Your task to perform on an android device: What does the iPhone 8 look like? Image 0: 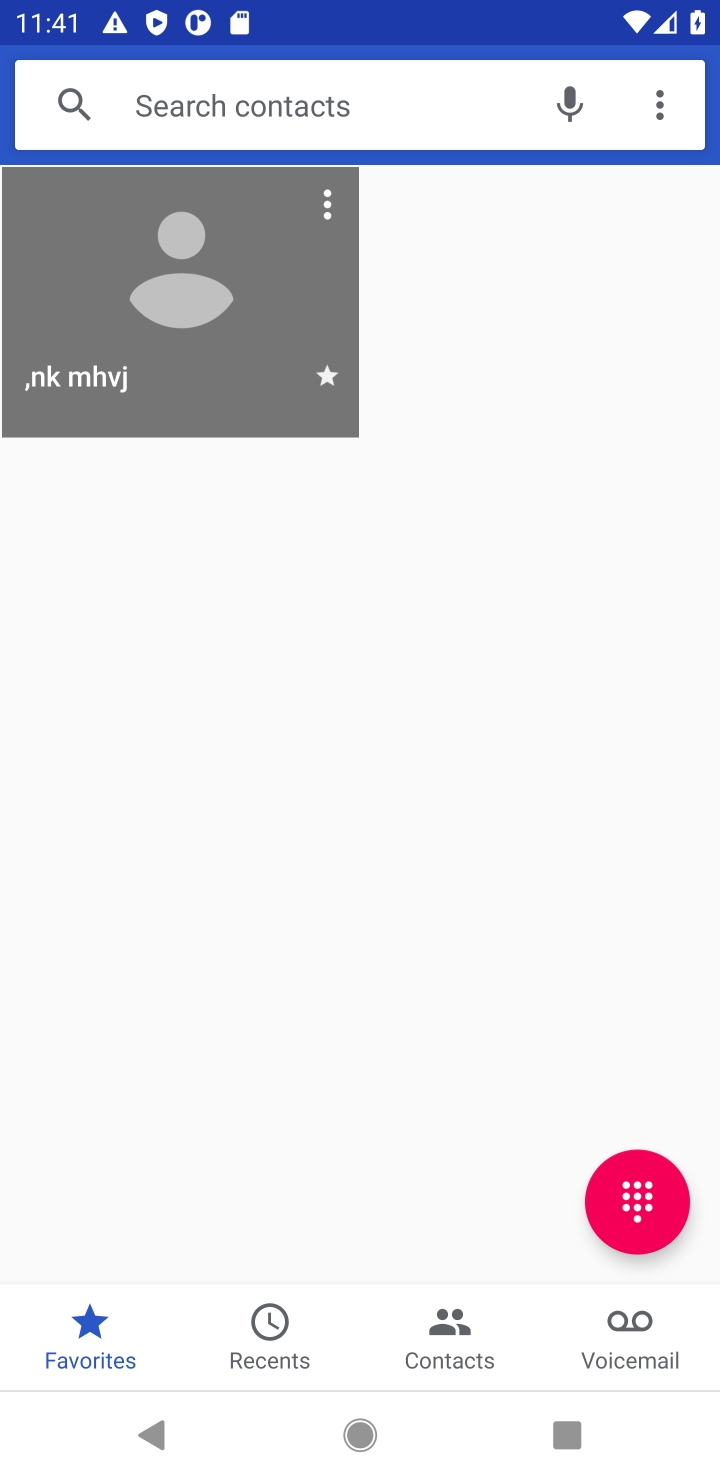
Step 0: press home button
Your task to perform on an android device: What does the iPhone 8 look like? Image 1: 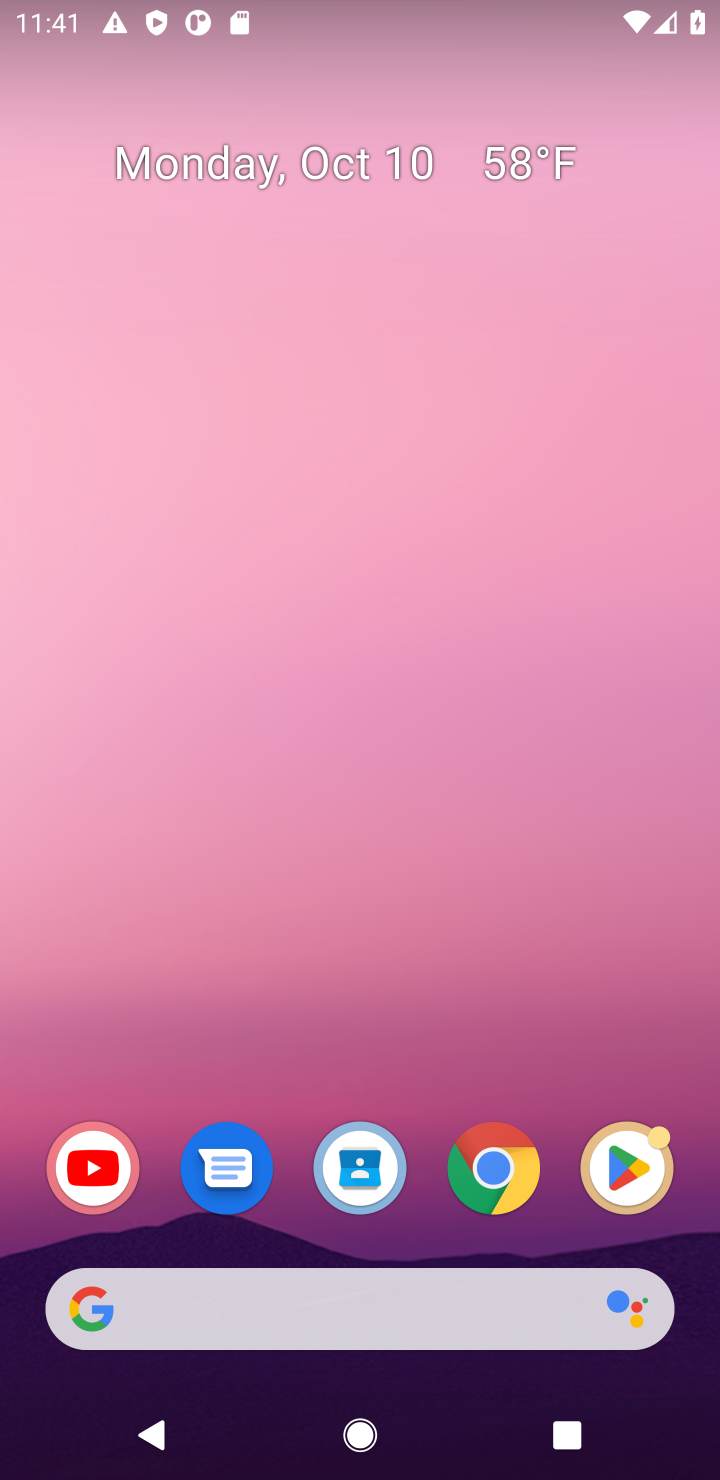
Step 1: click (348, 1291)
Your task to perform on an android device: What does the iPhone 8 look like? Image 2: 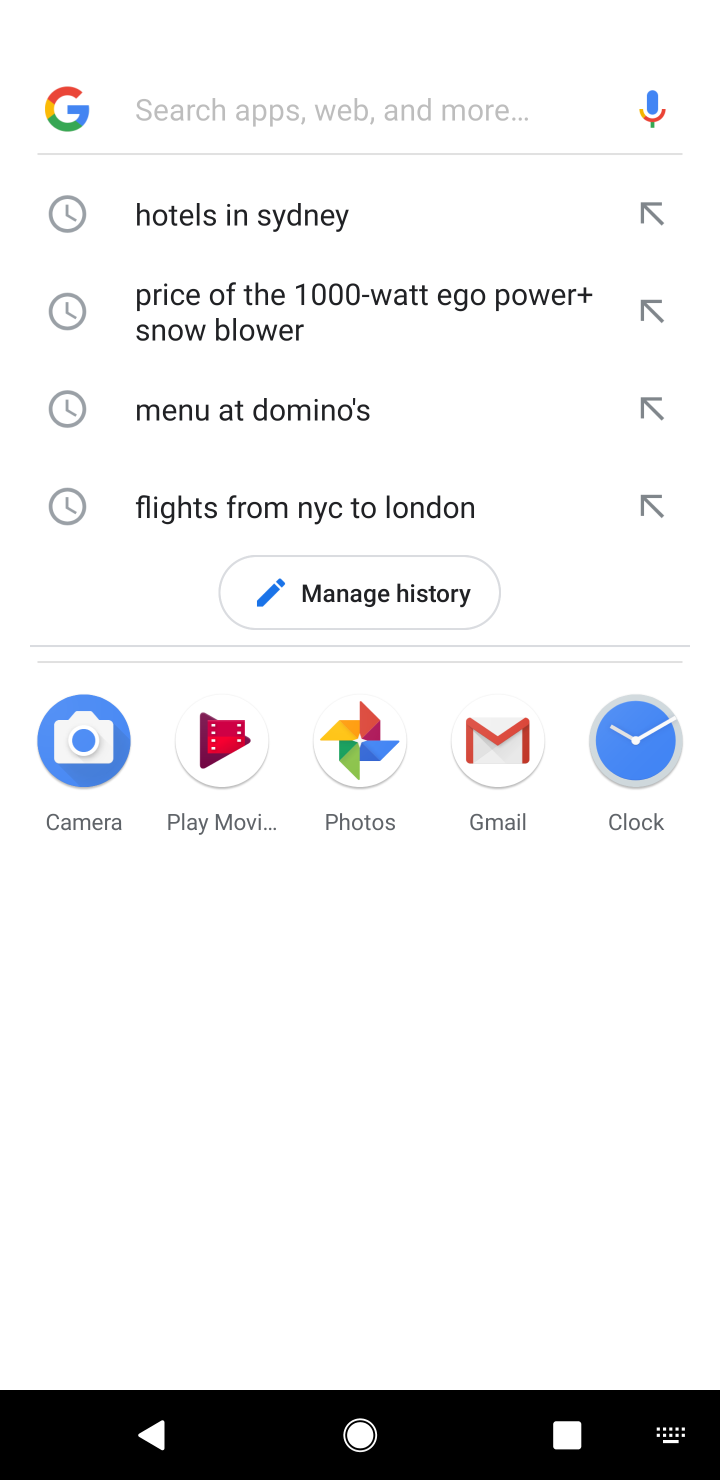
Step 2: type "iPhone 8 look like"
Your task to perform on an android device: What does the iPhone 8 look like? Image 3: 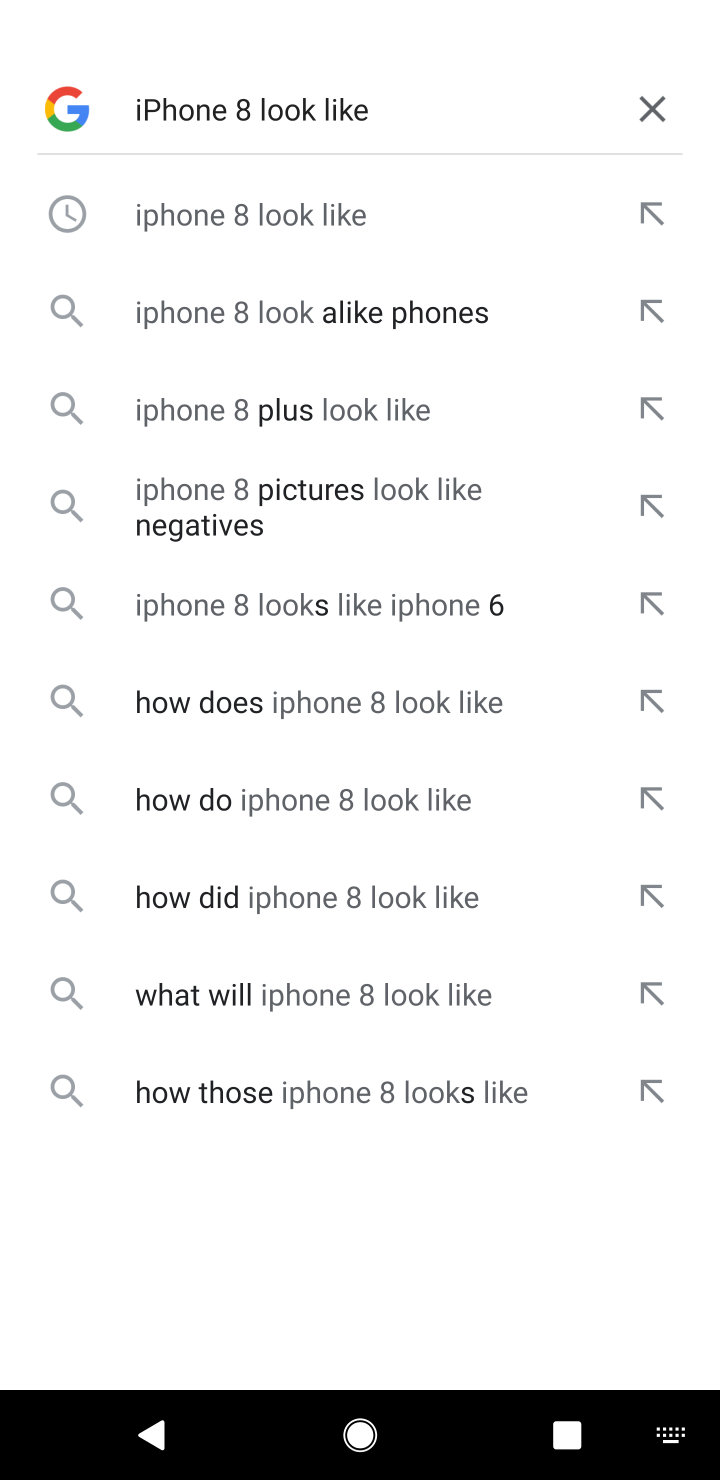
Step 3: type ""
Your task to perform on an android device: What does the iPhone 8 look like? Image 4: 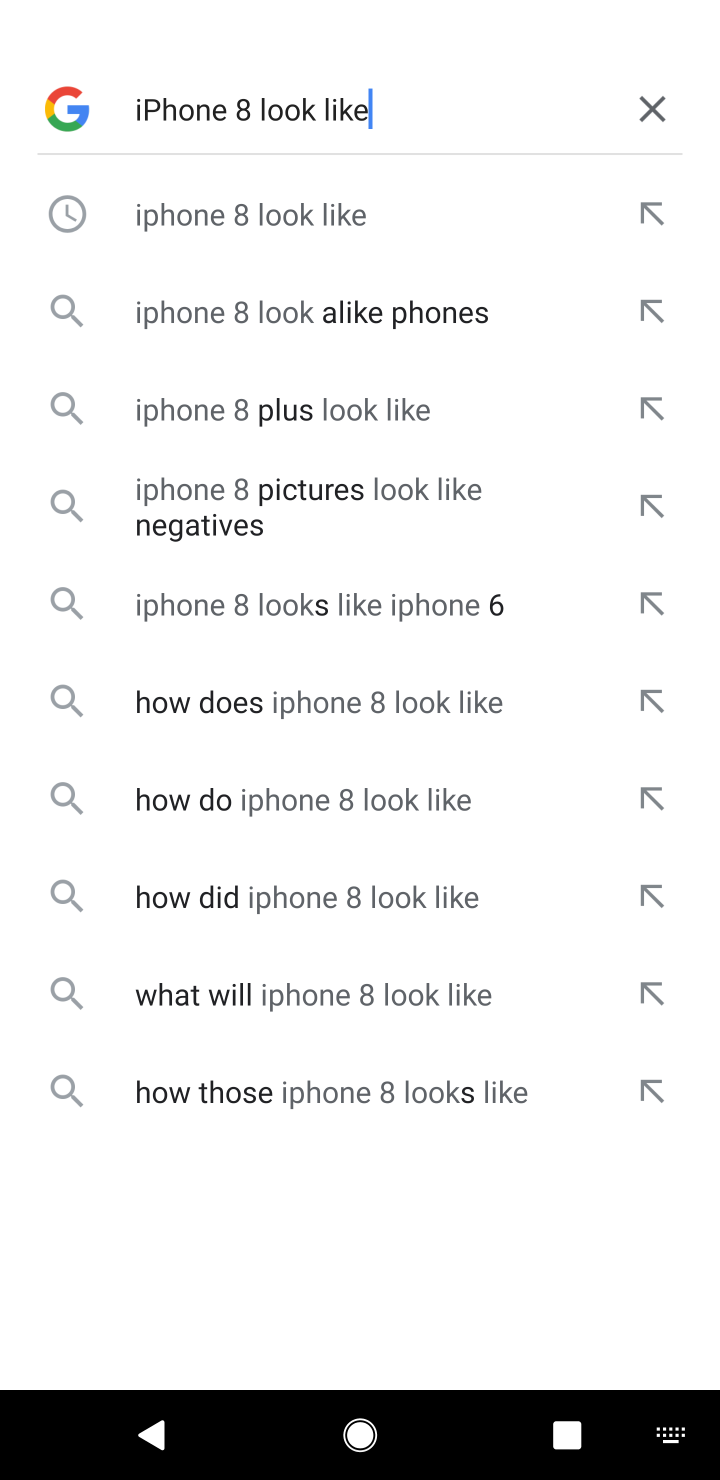
Step 4: click (406, 205)
Your task to perform on an android device: What does the iPhone 8 look like? Image 5: 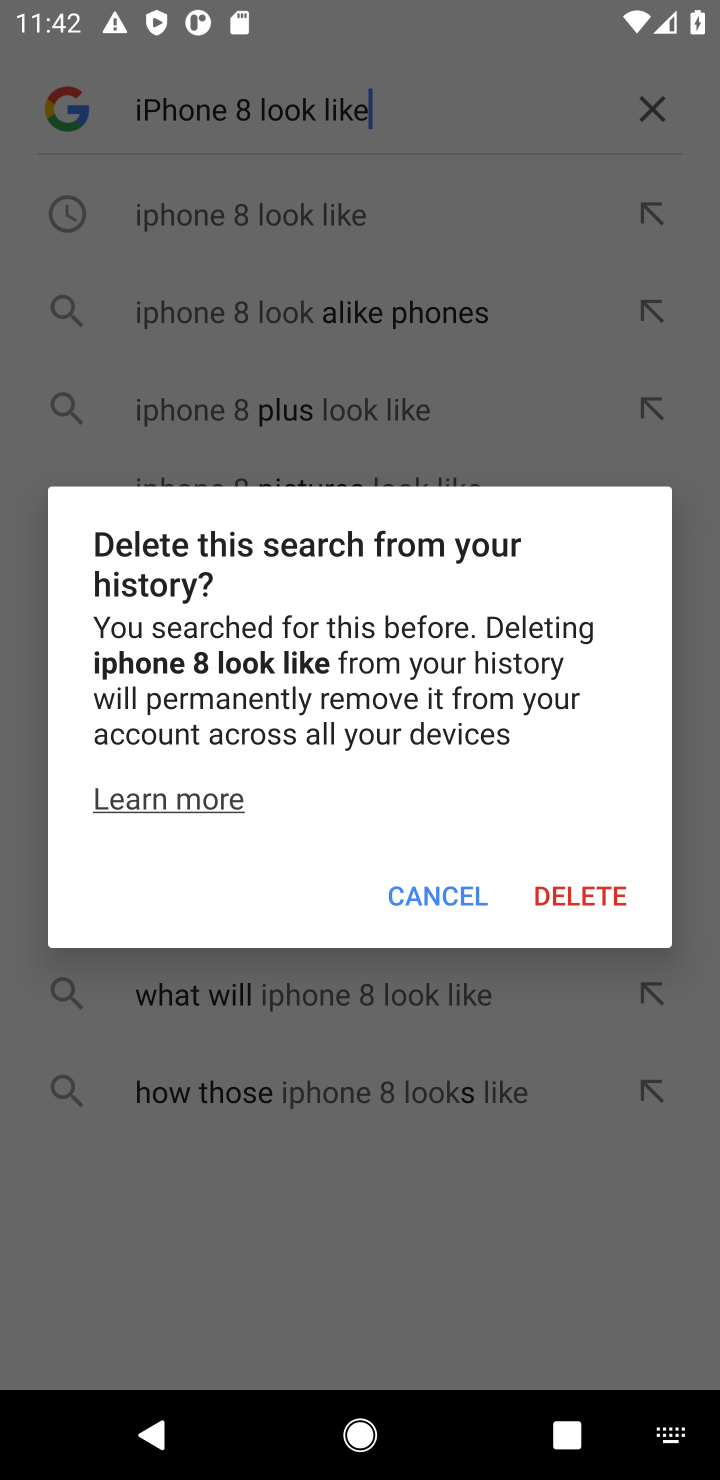
Step 5: click (410, 884)
Your task to perform on an android device: What does the iPhone 8 look like? Image 6: 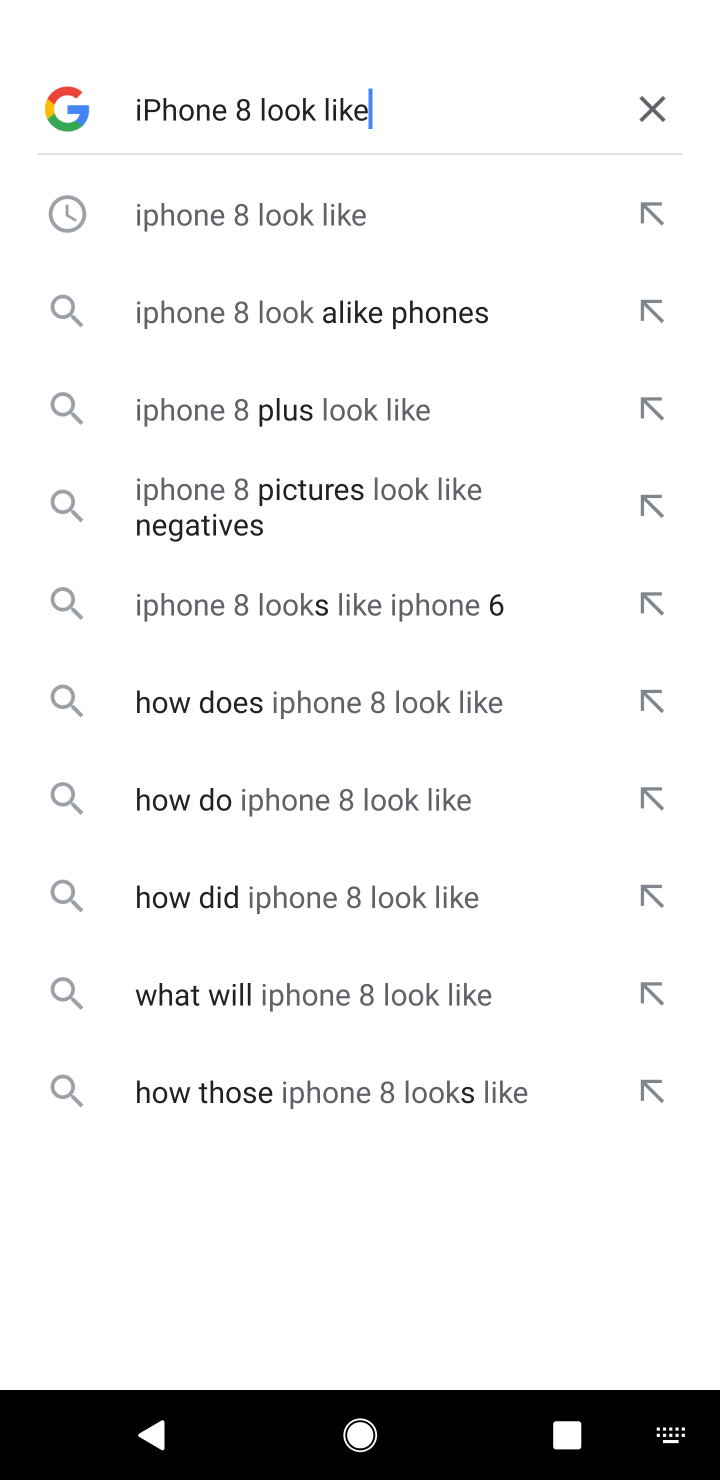
Step 6: click (237, 211)
Your task to perform on an android device: What does the iPhone 8 look like? Image 7: 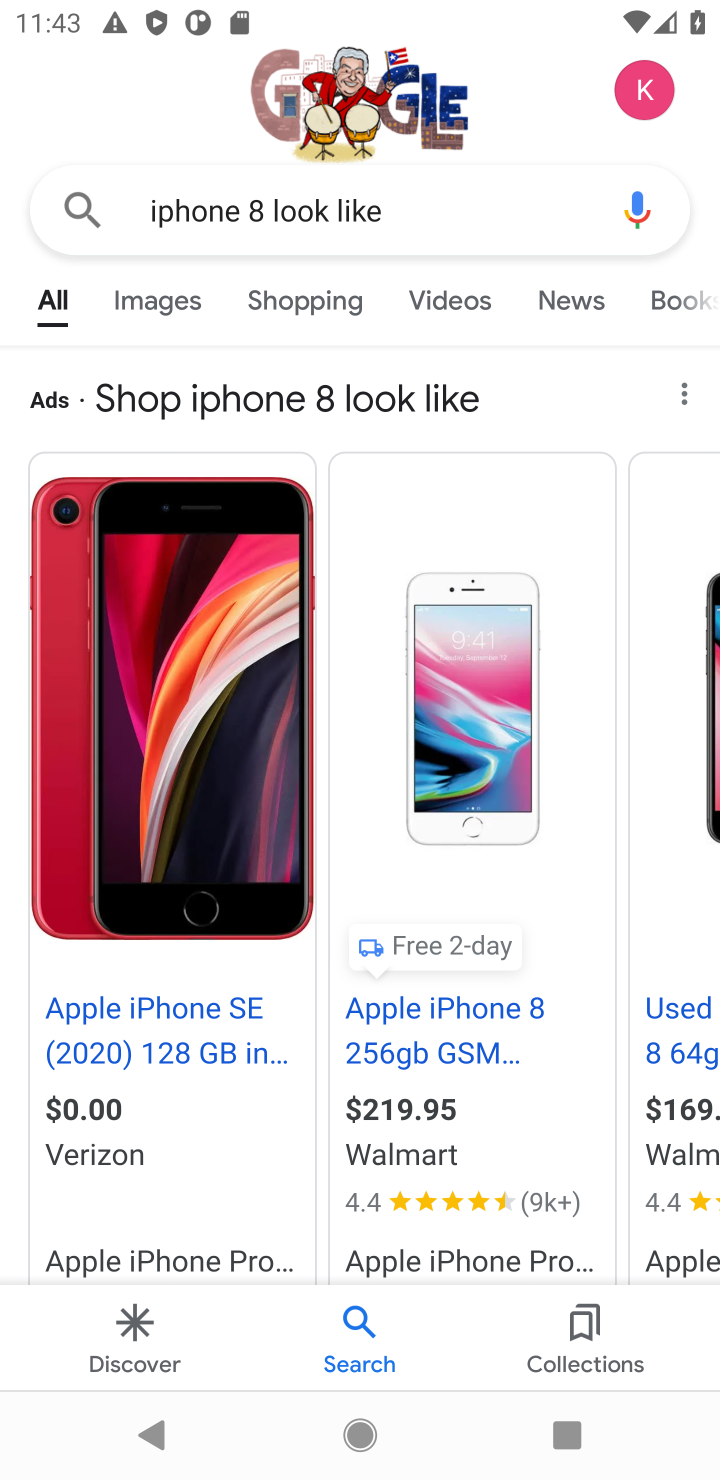
Step 7: task complete